Your task to perform on an android device: Go to Yahoo.com Image 0: 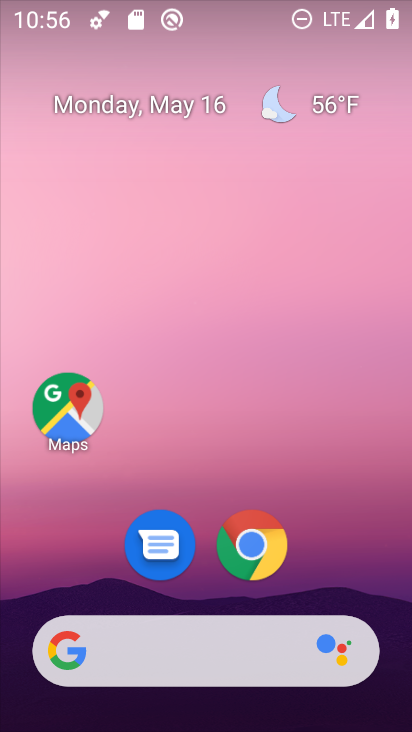
Step 0: click (256, 545)
Your task to perform on an android device: Go to Yahoo.com Image 1: 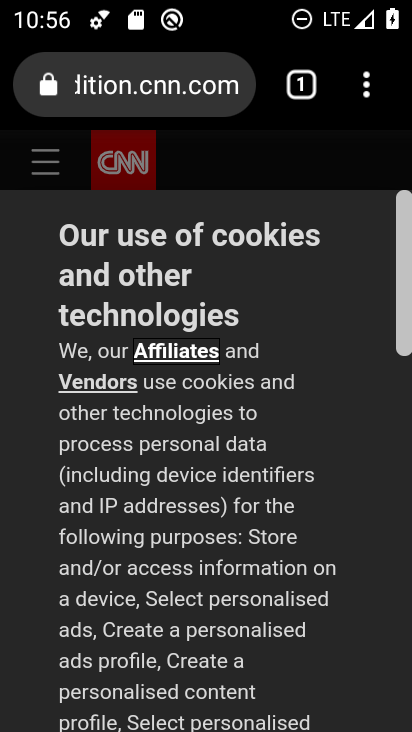
Step 1: click (238, 97)
Your task to perform on an android device: Go to Yahoo.com Image 2: 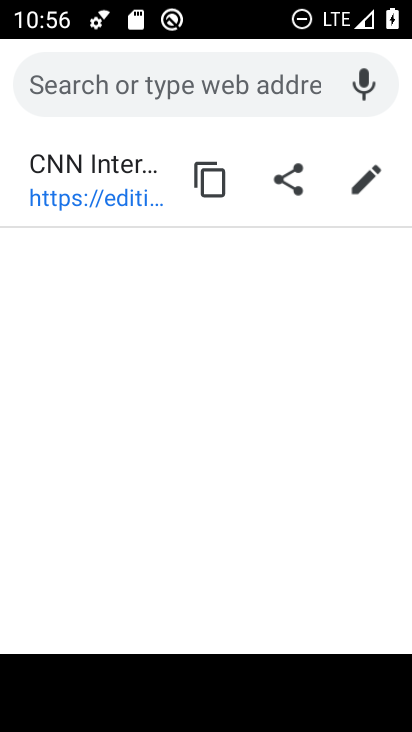
Step 2: type "Yahoo.com"
Your task to perform on an android device: Go to Yahoo.com Image 3: 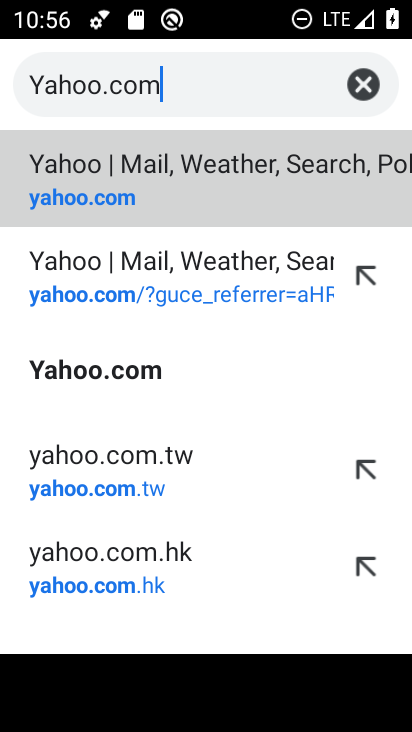
Step 3: click (126, 371)
Your task to perform on an android device: Go to Yahoo.com Image 4: 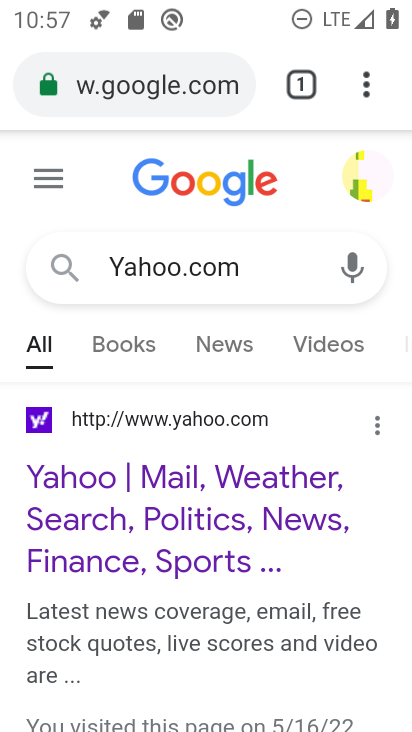
Step 4: click (139, 472)
Your task to perform on an android device: Go to Yahoo.com Image 5: 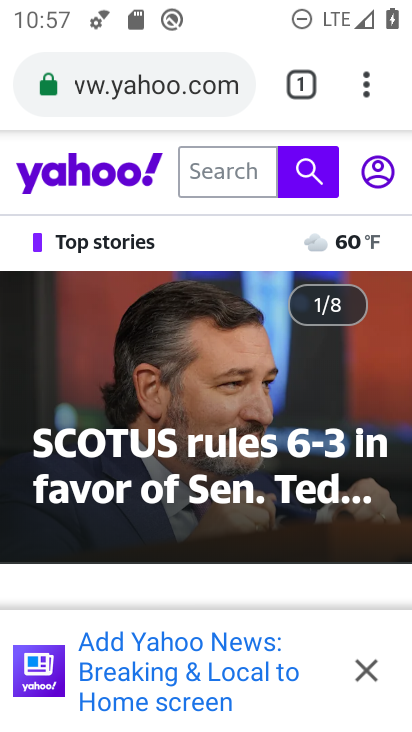
Step 5: task complete